Your task to perform on an android device: Open the map Image 0: 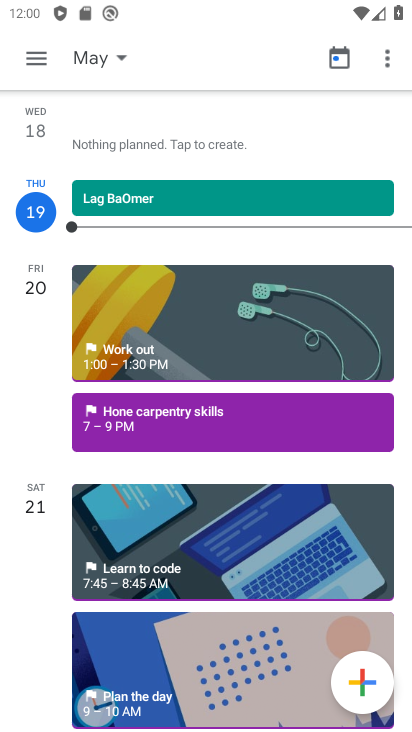
Step 0: press home button
Your task to perform on an android device: Open the map Image 1: 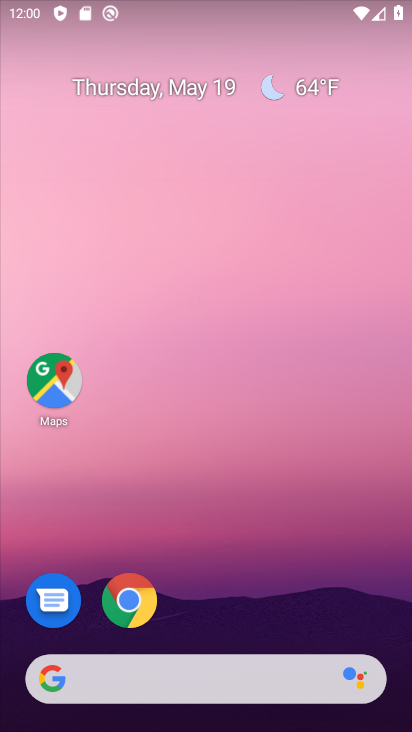
Step 1: click (66, 368)
Your task to perform on an android device: Open the map Image 2: 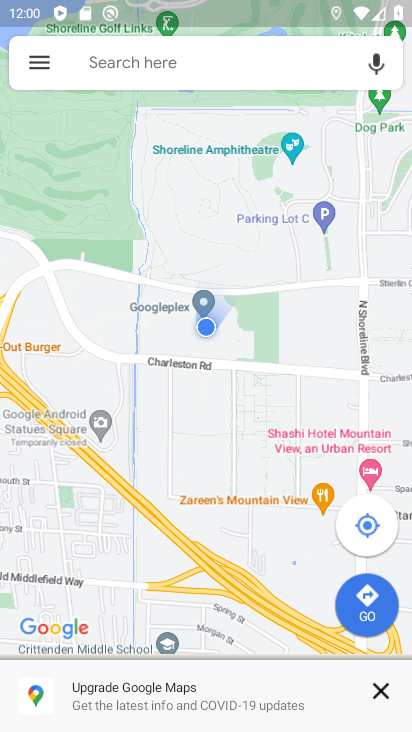
Step 2: task complete